Your task to perform on an android device: Turn on the flashlight Image 0: 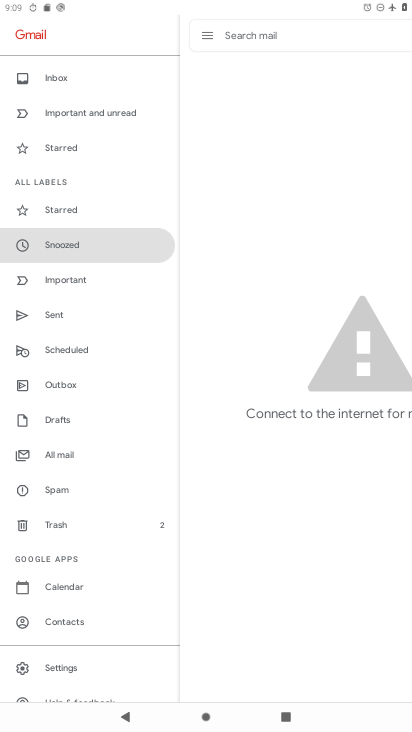
Step 0: press home button
Your task to perform on an android device: Turn on the flashlight Image 1: 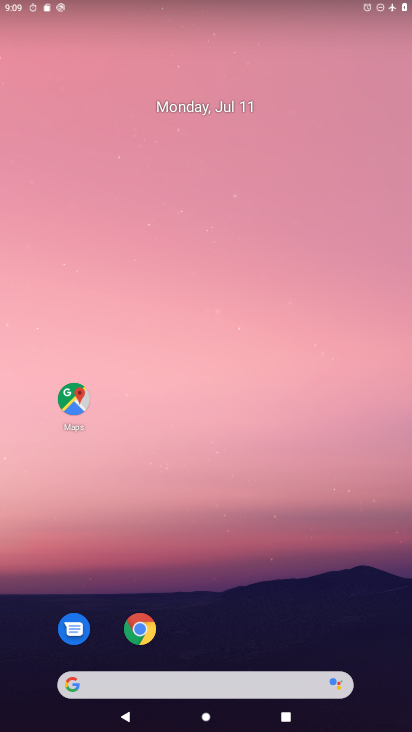
Step 1: drag from (233, 648) to (291, 193)
Your task to perform on an android device: Turn on the flashlight Image 2: 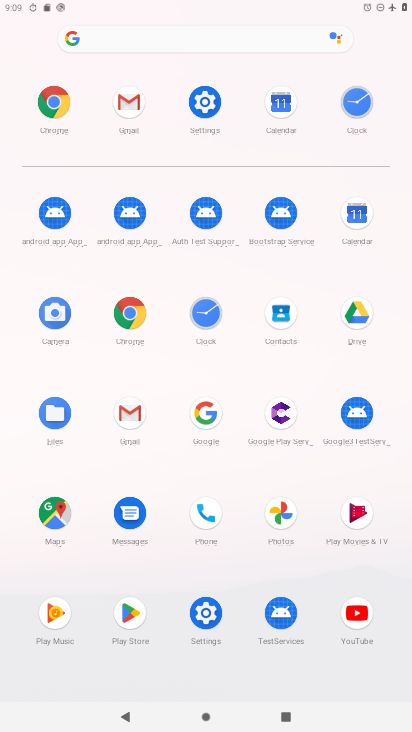
Step 2: click (203, 110)
Your task to perform on an android device: Turn on the flashlight Image 3: 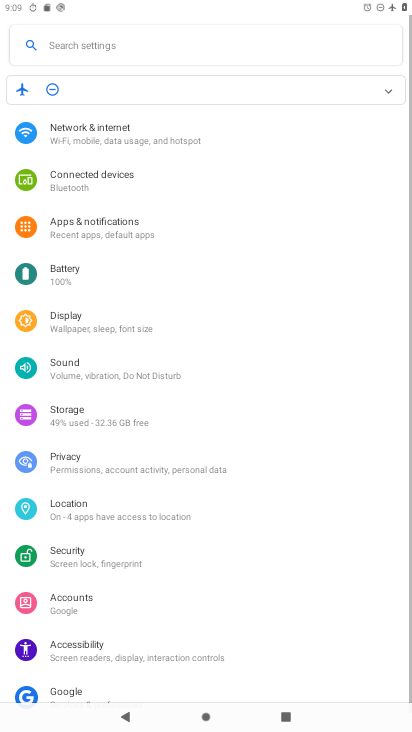
Step 3: click (199, 43)
Your task to perform on an android device: Turn on the flashlight Image 4: 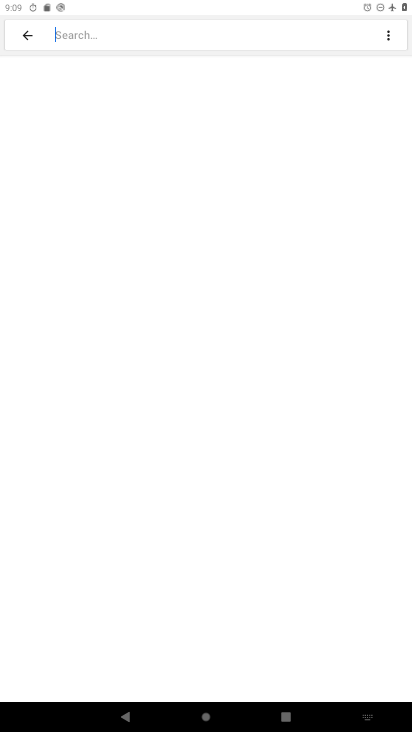
Step 4: type "Flashlight"
Your task to perform on an android device: Turn on the flashlight Image 5: 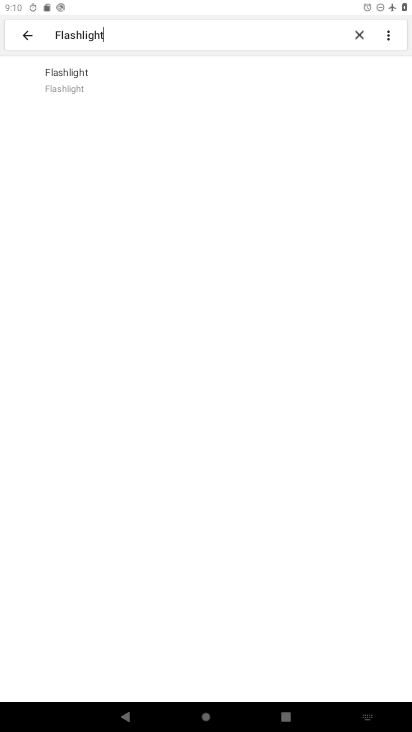
Step 5: task complete